Your task to perform on an android device: find snoozed emails in the gmail app Image 0: 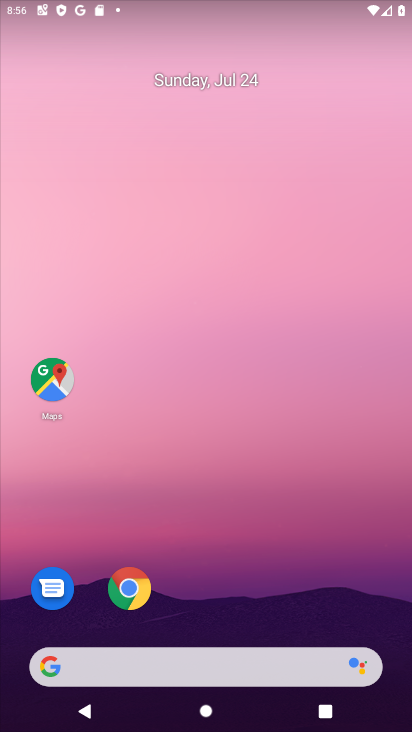
Step 0: drag from (187, 674) to (185, 130)
Your task to perform on an android device: find snoozed emails in the gmail app Image 1: 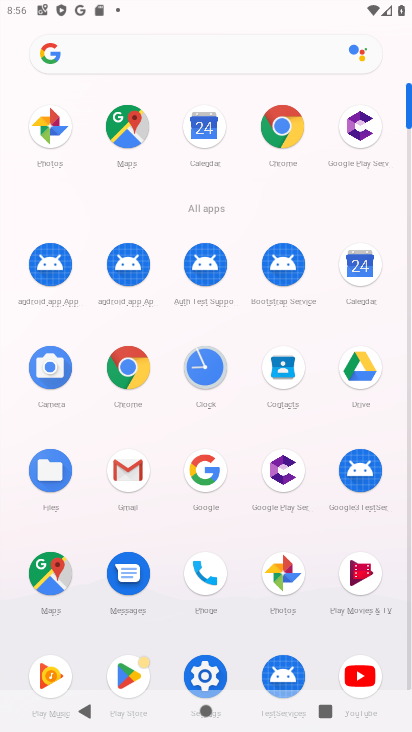
Step 1: click (135, 477)
Your task to perform on an android device: find snoozed emails in the gmail app Image 2: 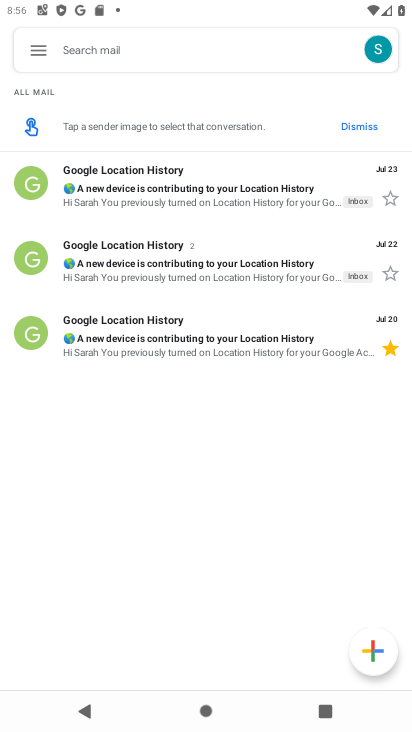
Step 2: click (53, 47)
Your task to perform on an android device: find snoozed emails in the gmail app Image 3: 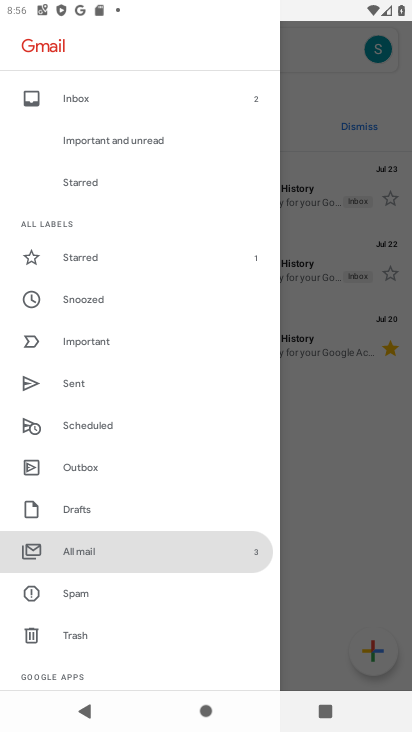
Step 3: click (80, 290)
Your task to perform on an android device: find snoozed emails in the gmail app Image 4: 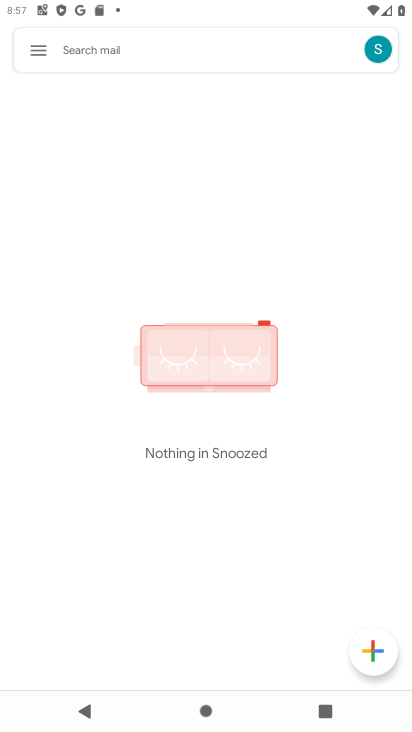
Step 4: task complete